Your task to perform on an android device: open a bookmark in the chrome app Image 0: 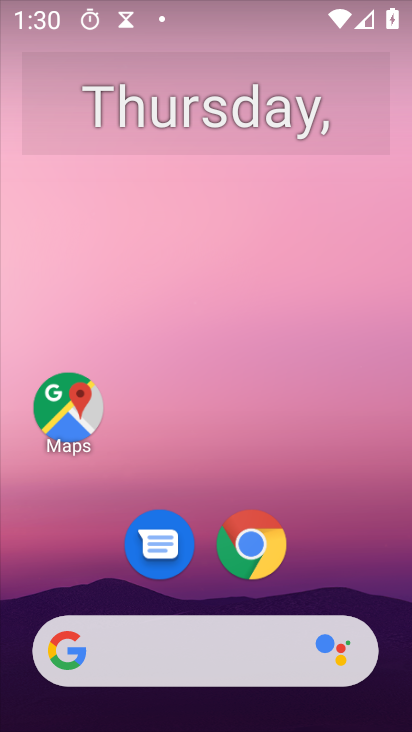
Step 0: click (252, 537)
Your task to perform on an android device: open a bookmark in the chrome app Image 1: 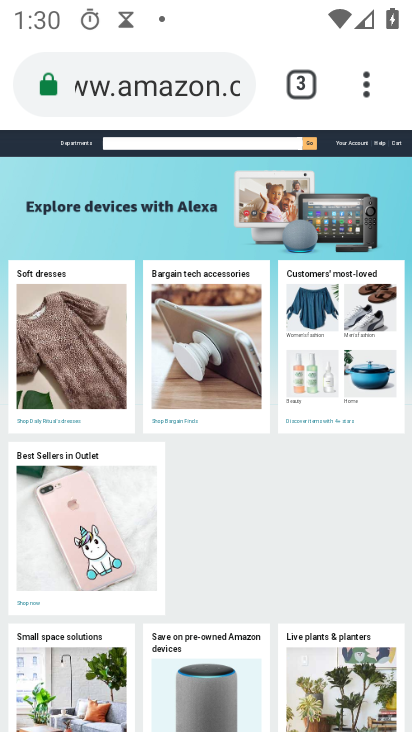
Step 1: click (366, 96)
Your task to perform on an android device: open a bookmark in the chrome app Image 2: 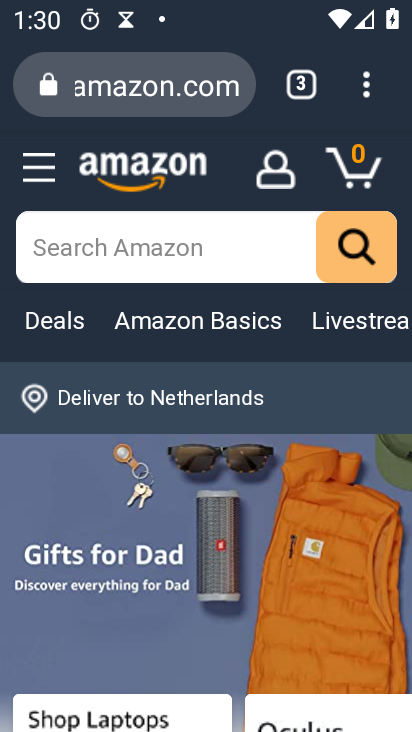
Step 2: click (368, 100)
Your task to perform on an android device: open a bookmark in the chrome app Image 3: 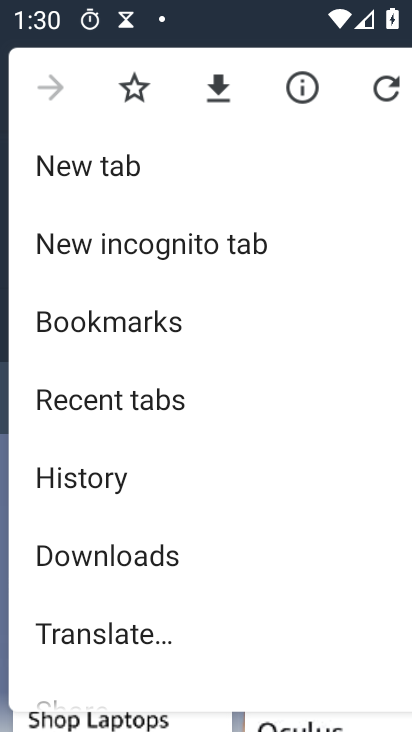
Step 3: click (116, 323)
Your task to perform on an android device: open a bookmark in the chrome app Image 4: 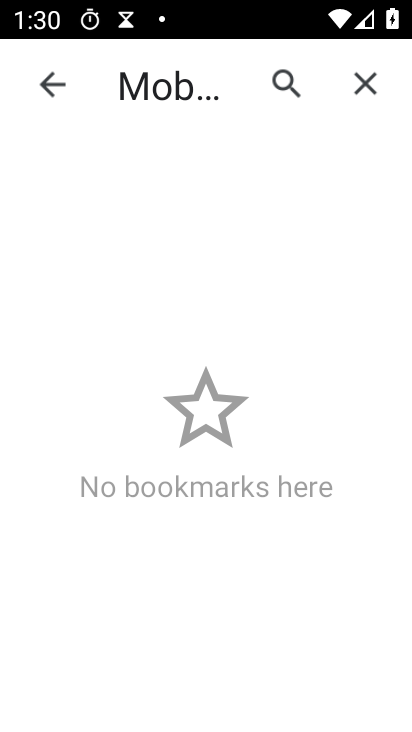
Step 4: task complete